Your task to perform on an android device: find snoozed emails in the gmail app Image 0: 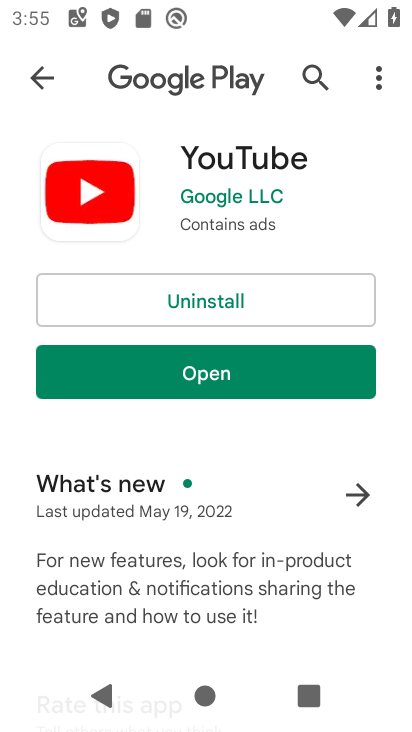
Step 0: press home button
Your task to perform on an android device: find snoozed emails in the gmail app Image 1: 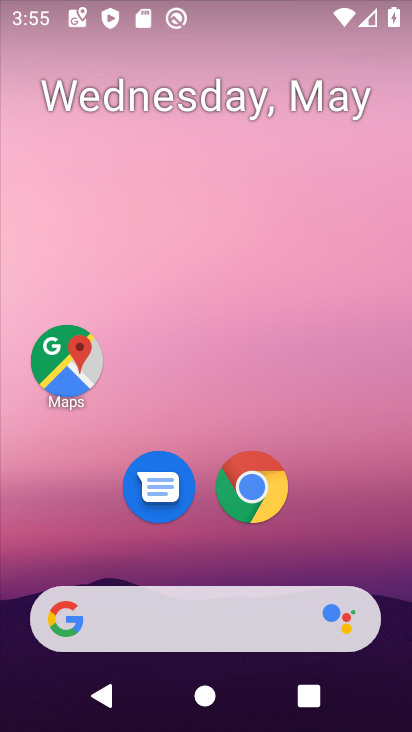
Step 1: drag from (316, 522) to (296, 20)
Your task to perform on an android device: find snoozed emails in the gmail app Image 2: 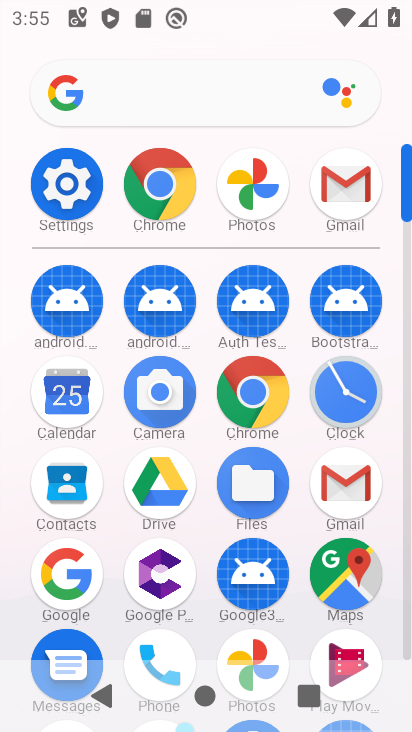
Step 2: drag from (9, 556) to (21, 217)
Your task to perform on an android device: find snoozed emails in the gmail app Image 3: 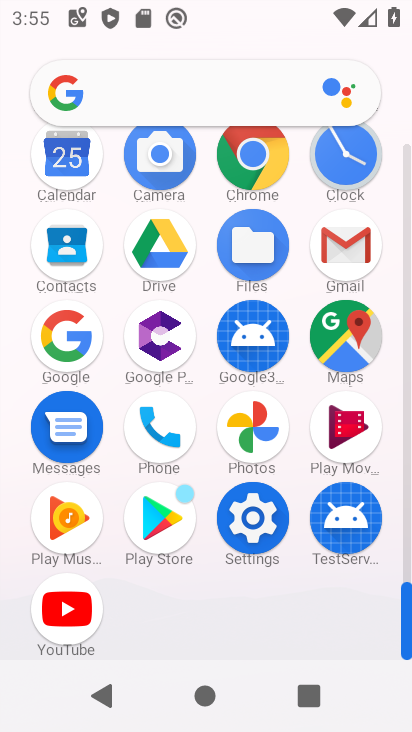
Step 3: click (344, 235)
Your task to perform on an android device: find snoozed emails in the gmail app Image 4: 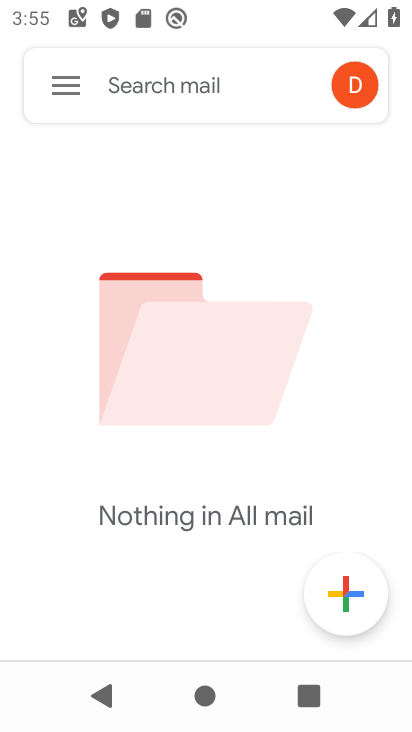
Step 4: click (60, 72)
Your task to perform on an android device: find snoozed emails in the gmail app Image 5: 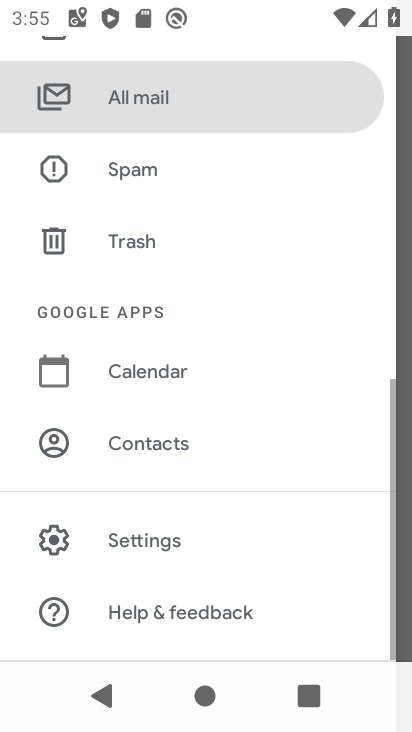
Step 5: drag from (232, 238) to (235, 588)
Your task to perform on an android device: find snoozed emails in the gmail app Image 6: 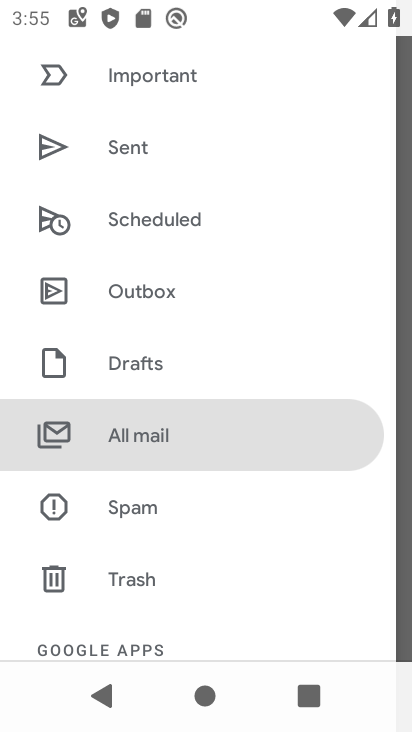
Step 6: drag from (215, 112) to (231, 587)
Your task to perform on an android device: find snoozed emails in the gmail app Image 7: 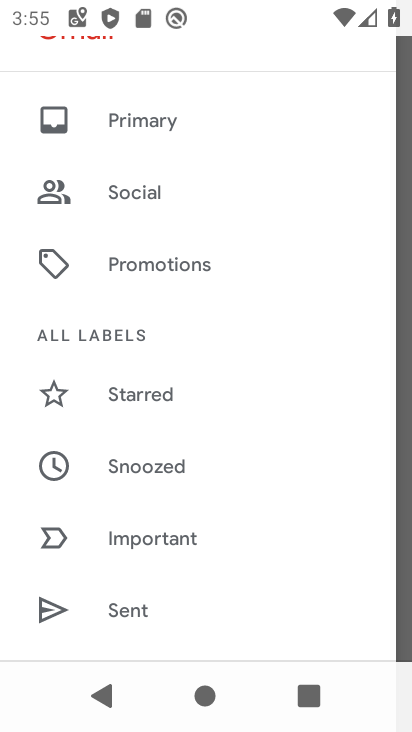
Step 7: click (136, 452)
Your task to perform on an android device: find snoozed emails in the gmail app Image 8: 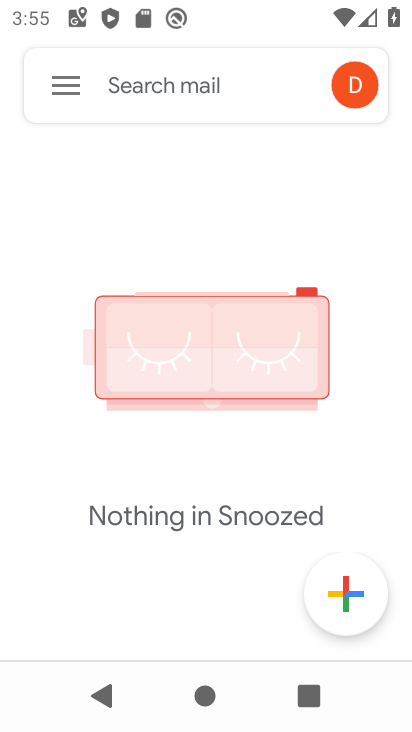
Step 8: task complete